Your task to perform on an android device: stop showing notifications on the lock screen Image 0: 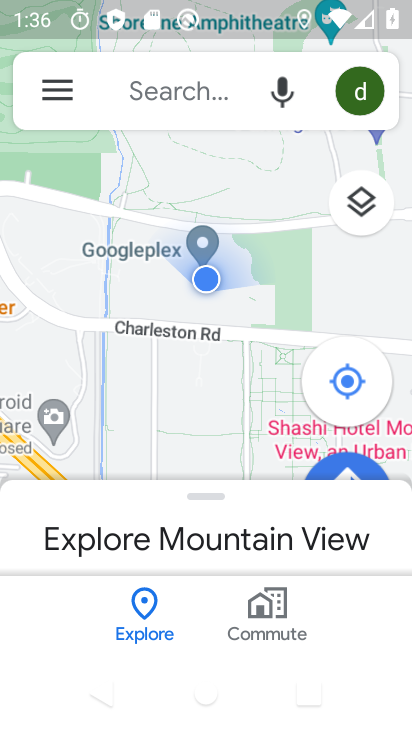
Step 0: press home button
Your task to perform on an android device: stop showing notifications on the lock screen Image 1: 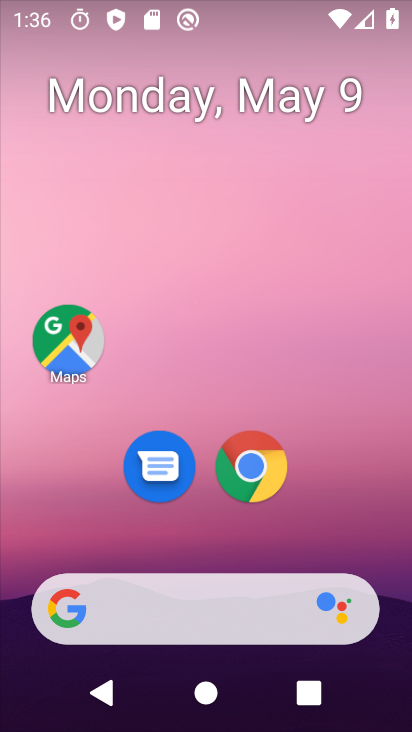
Step 1: drag from (267, 562) to (284, 212)
Your task to perform on an android device: stop showing notifications on the lock screen Image 2: 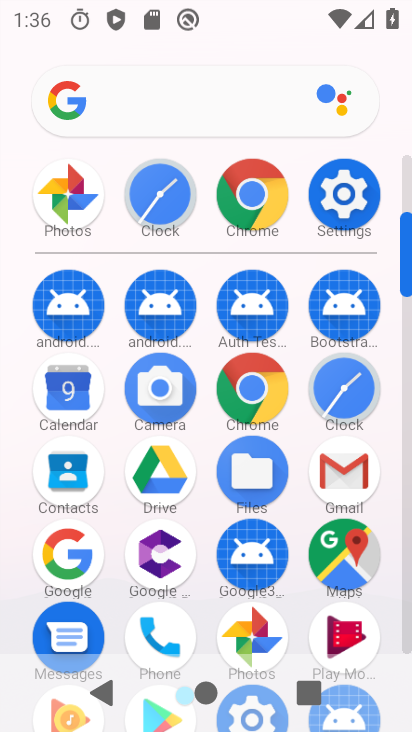
Step 2: click (347, 209)
Your task to perform on an android device: stop showing notifications on the lock screen Image 3: 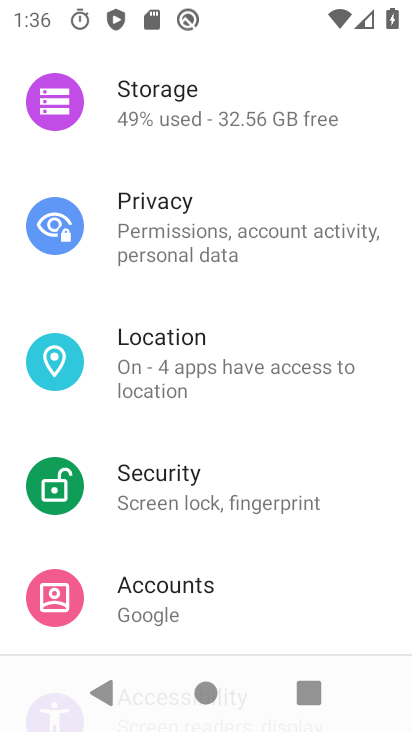
Step 3: drag from (247, 405) to (264, 259)
Your task to perform on an android device: stop showing notifications on the lock screen Image 4: 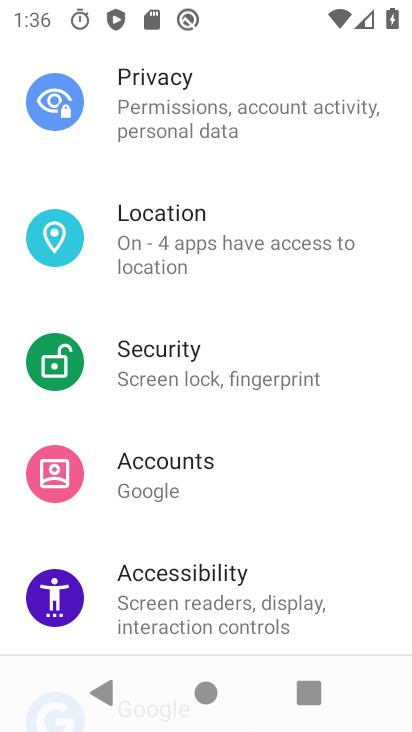
Step 4: drag from (216, 531) to (190, 273)
Your task to perform on an android device: stop showing notifications on the lock screen Image 5: 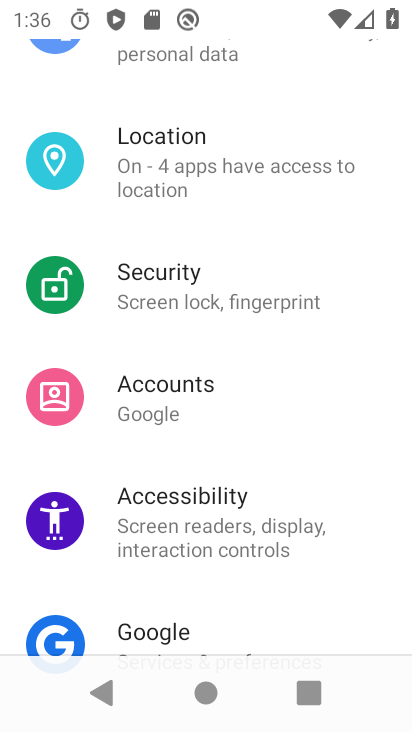
Step 5: drag from (236, 167) to (184, 550)
Your task to perform on an android device: stop showing notifications on the lock screen Image 6: 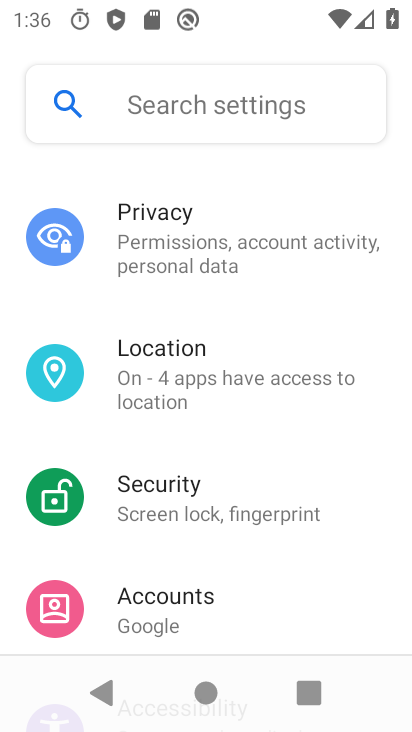
Step 6: drag from (167, 237) to (170, 589)
Your task to perform on an android device: stop showing notifications on the lock screen Image 7: 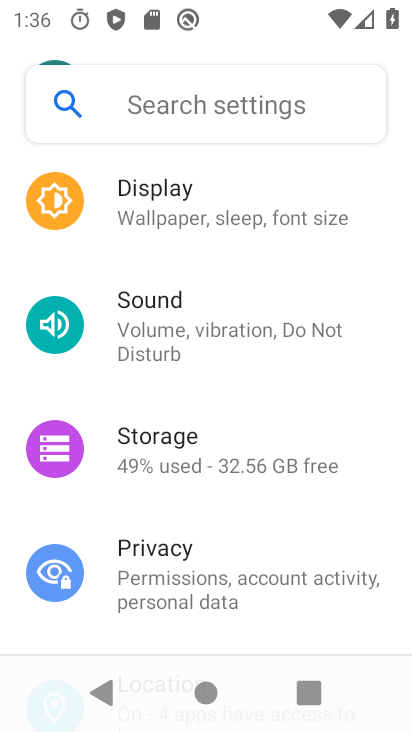
Step 7: drag from (201, 195) to (198, 400)
Your task to perform on an android device: stop showing notifications on the lock screen Image 8: 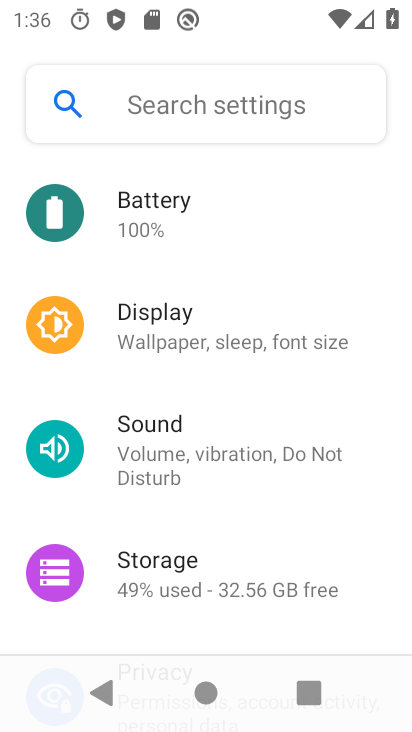
Step 8: drag from (213, 201) to (242, 476)
Your task to perform on an android device: stop showing notifications on the lock screen Image 9: 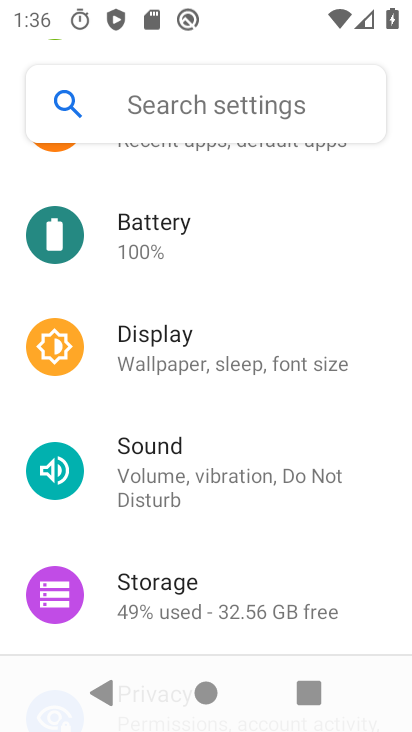
Step 9: drag from (234, 267) to (307, 549)
Your task to perform on an android device: stop showing notifications on the lock screen Image 10: 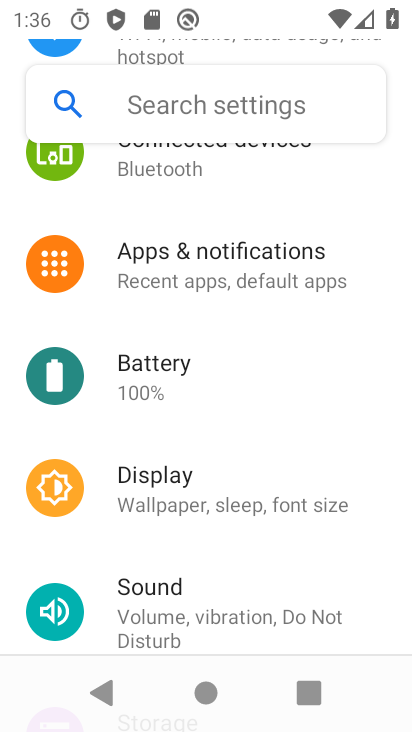
Step 10: click (257, 271)
Your task to perform on an android device: stop showing notifications on the lock screen Image 11: 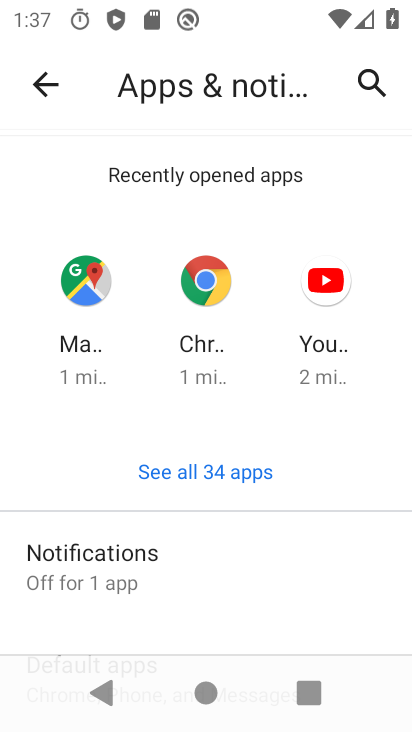
Step 11: click (135, 580)
Your task to perform on an android device: stop showing notifications on the lock screen Image 12: 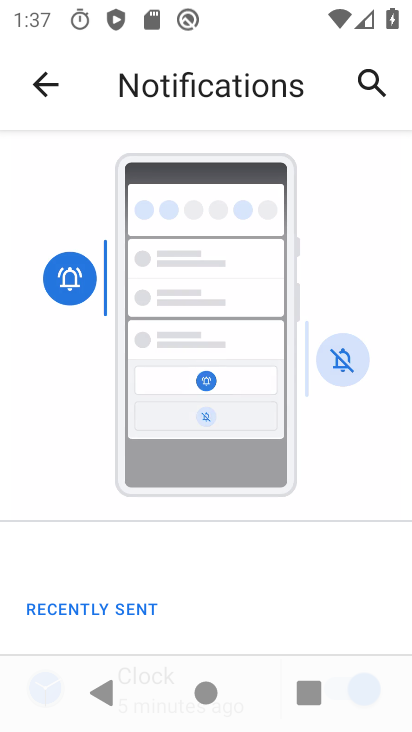
Step 12: drag from (246, 562) to (247, 388)
Your task to perform on an android device: stop showing notifications on the lock screen Image 13: 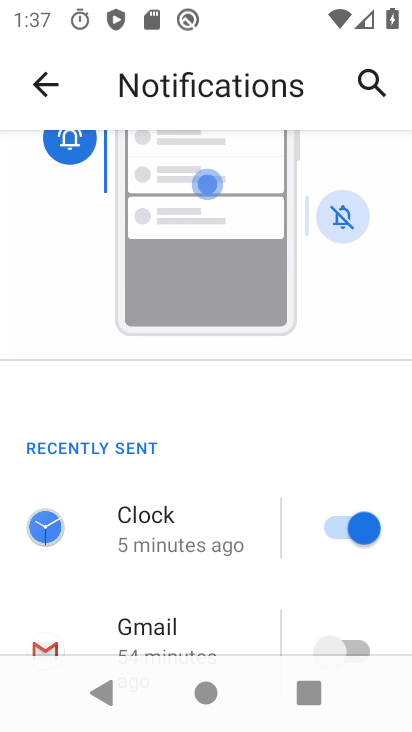
Step 13: drag from (244, 599) to (227, 199)
Your task to perform on an android device: stop showing notifications on the lock screen Image 14: 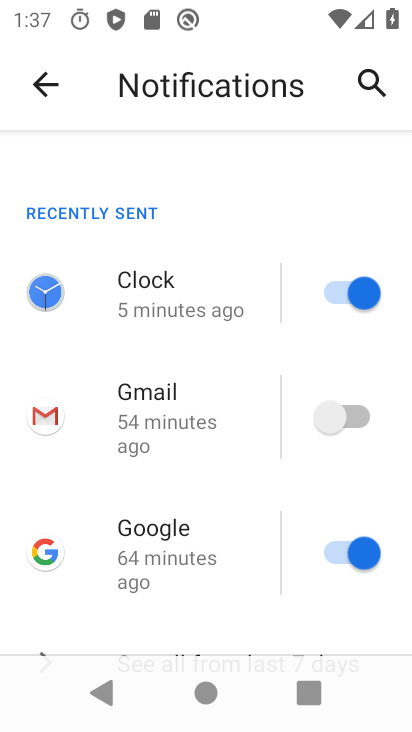
Step 14: drag from (220, 411) to (175, 20)
Your task to perform on an android device: stop showing notifications on the lock screen Image 15: 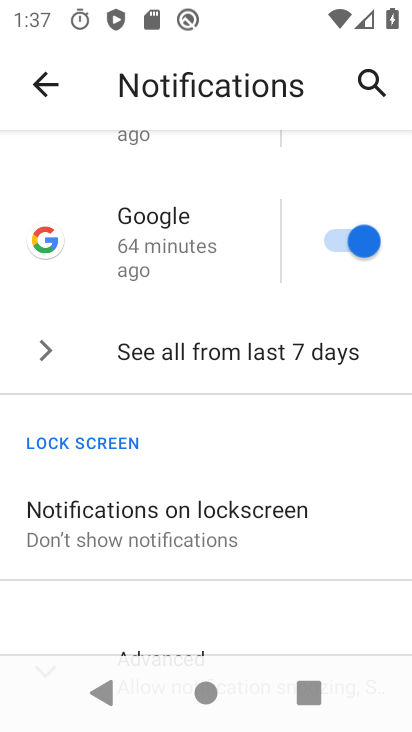
Step 15: click (167, 535)
Your task to perform on an android device: stop showing notifications on the lock screen Image 16: 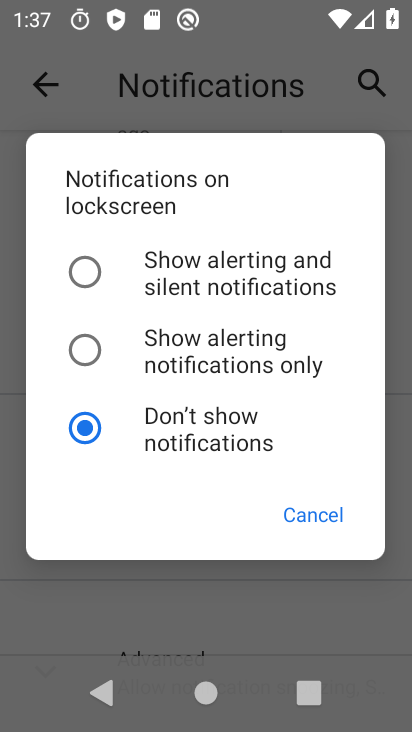
Step 16: task complete